Your task to perform on an android device: set the timer Image 0: 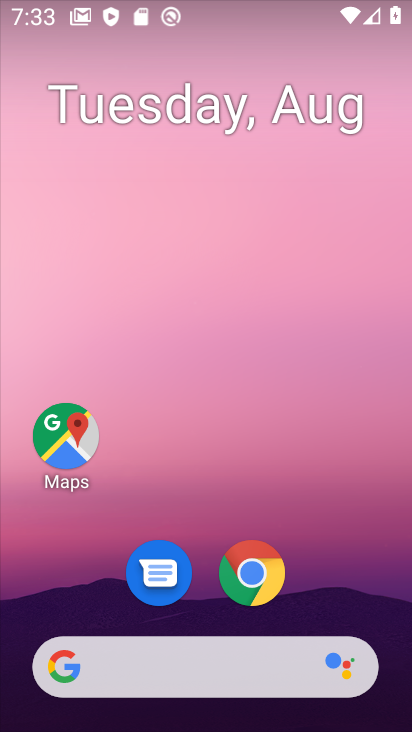
Step 0: click (243, 107)
Your task to perform on an android device: set the timer Image 1: 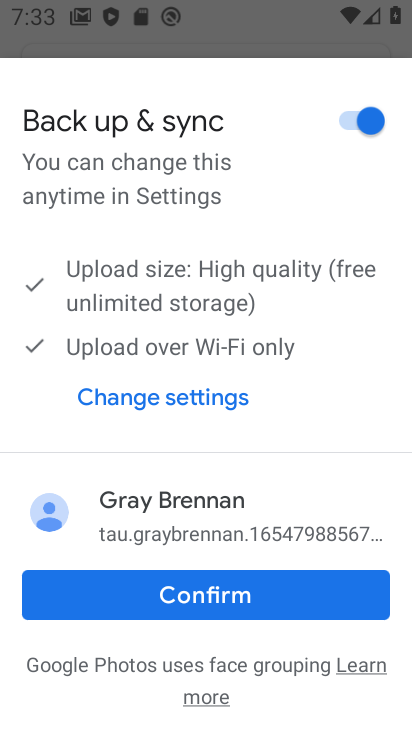
Step 1: press home button
Your task to perform on an android device: set the timer Image 2: 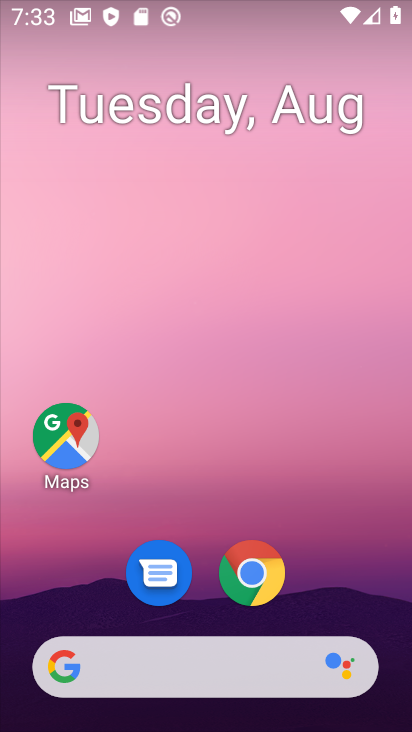
Step 2: drag from (201, 595) to (244, 14)
Your task to perform on an android device: set the timer Image 3: 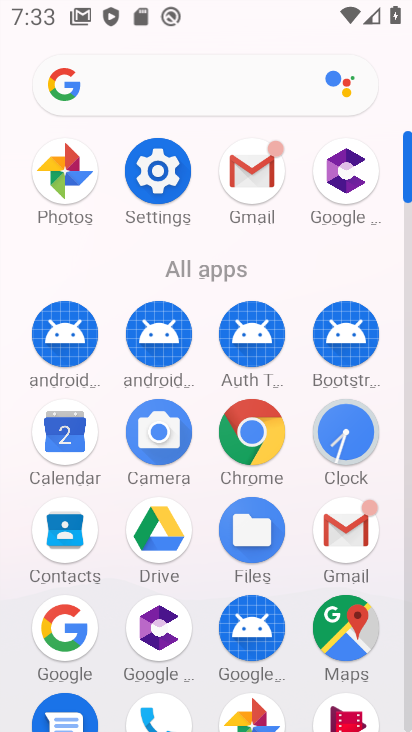
Step 3: click (345, 428)
Your task to perform on an android device: set the timer Image 4: 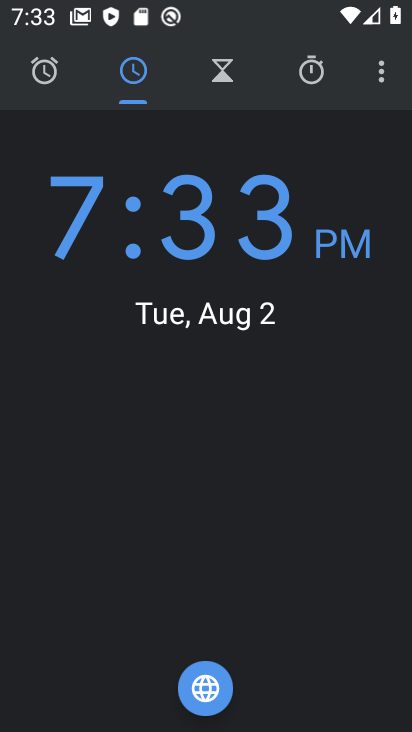
Step 4: click (220, 69)
Your task to perform on an android device: set the timer Image 5: 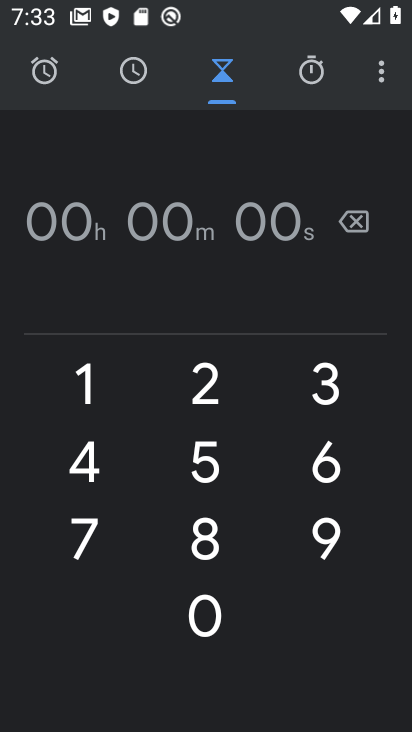
Step 5: click (301, 382)
Your task to perform on an android device: set the timer Image 6: 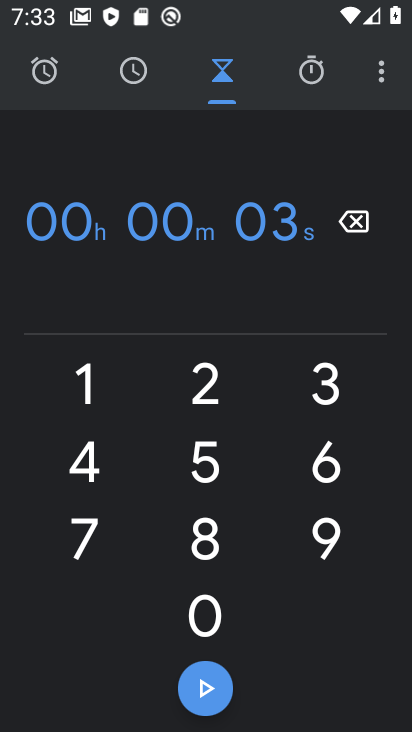
Step 6: click (184, 621)
Your task to perform on an android device: set the timer Image 7: 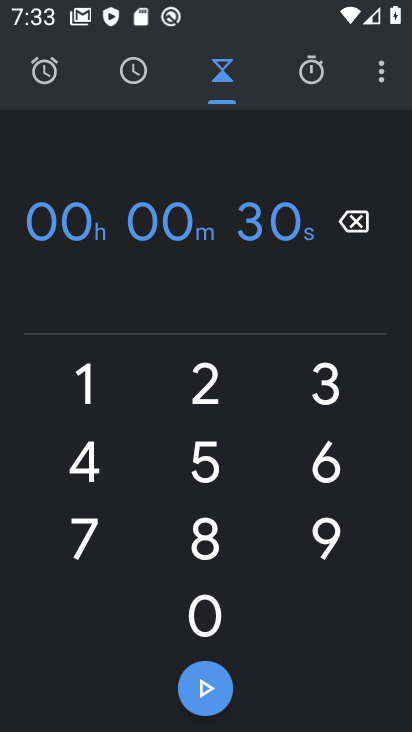
Step 7: click (191, 621)
Your task to perform on an android device: set the timer Image 8: 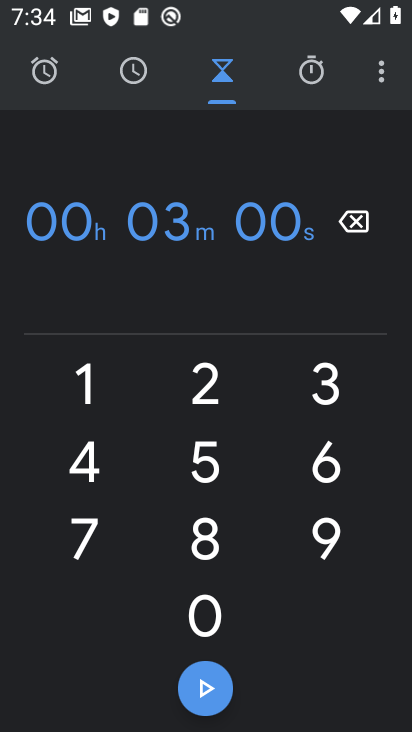
Step 8: click (205, 617)
Your task to perform on an android device: set the timer Image 9: 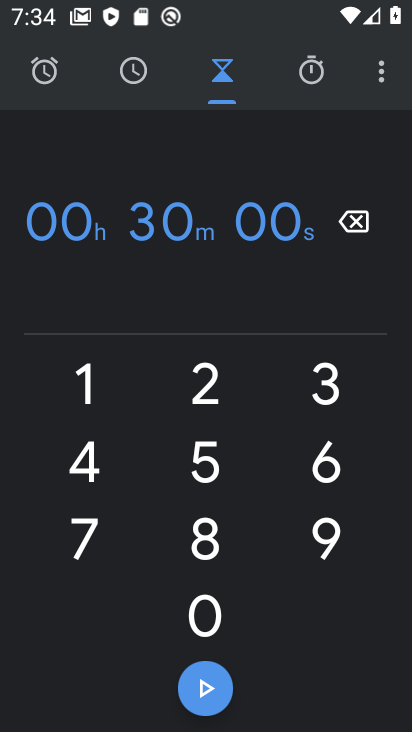
Step 9: click (201, 680)
Your task to perform on an android device: set the timer Image 10: 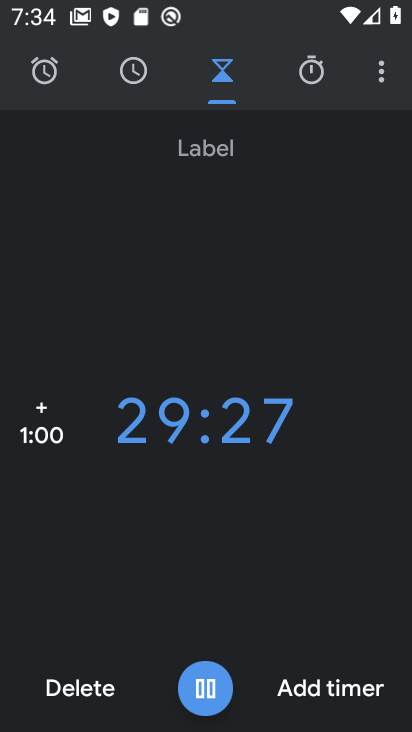
Step 10: task complete